Your task to perform on an android device: turn vacation reply on in the gmail app Image 0: 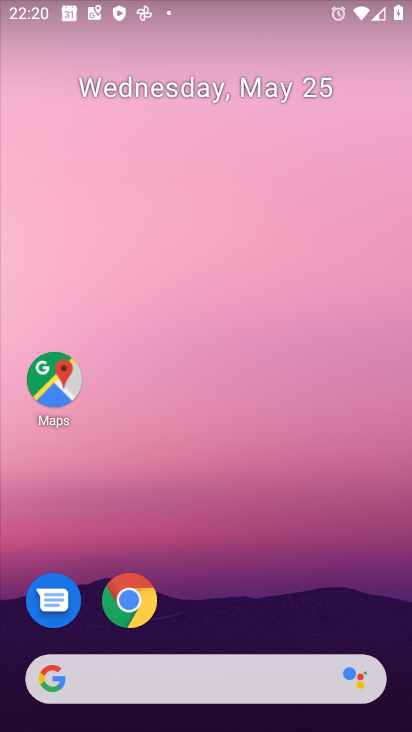
Step 0: drag from (274, 517) to (306, 102)
Your task to perform on an android device: turn vacation reply on in the gmail app Image 1: 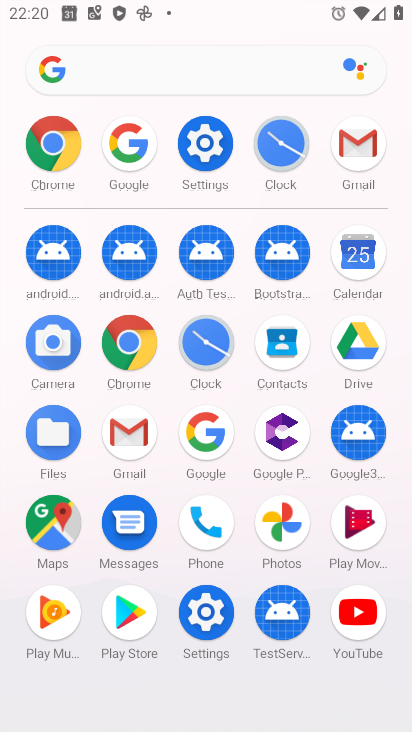
Step 1: click (146, 433)
Your task to perform on an android device: turn vacation reply on in the gmail app Image 2: 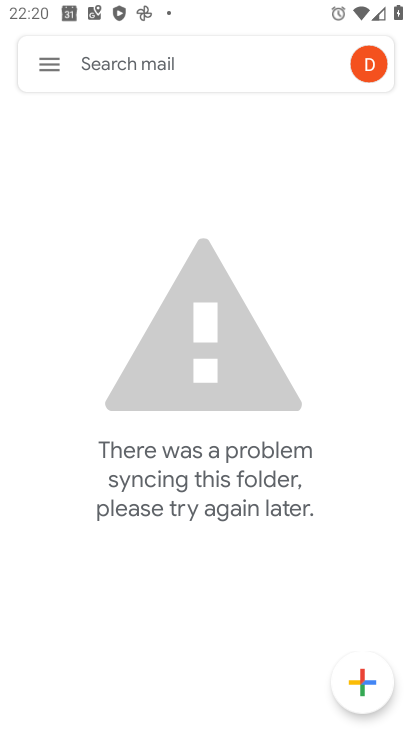
Step 2: click (33, 52)
Your task to perform on an android device: turn vacation reply on in the gmail app Image 3: 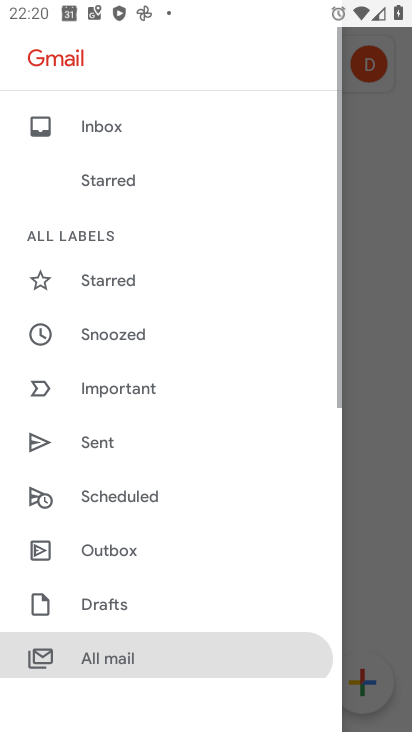
Step 3: drag from (154, 618) to (226, 198)
Your task to perform on an android device: turn vacation reply on in the gmail app Image 4: 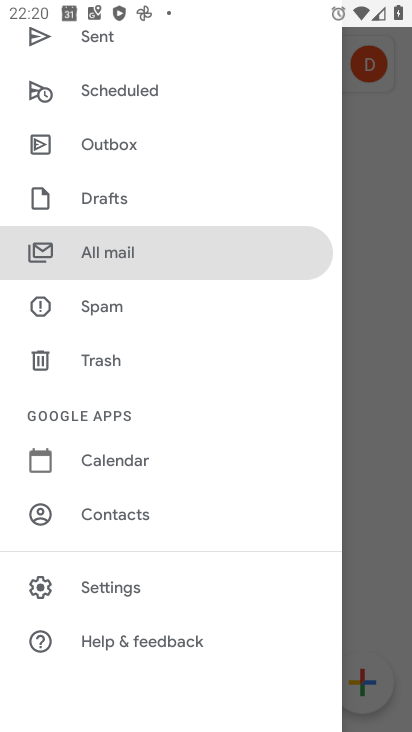
Step 4: click (181, 590)
Your task to perform on an android device: turn vacation reply on in the gmail app Image 5: 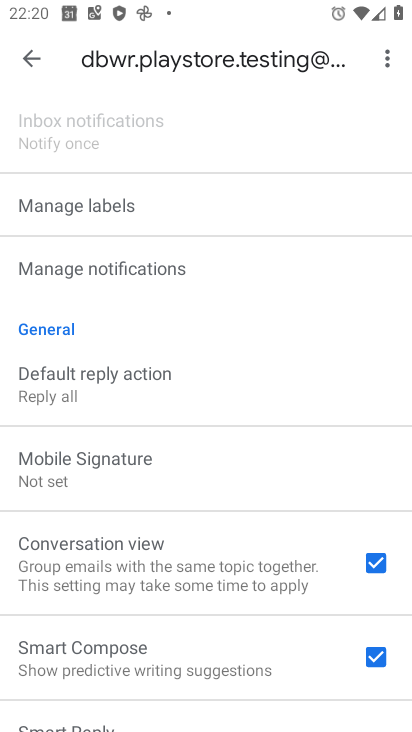
Step 5: drag from (275, 684) to (314, 292)
Your task to perform on an android device: turn vacation reply on in the gmail app Image 6: 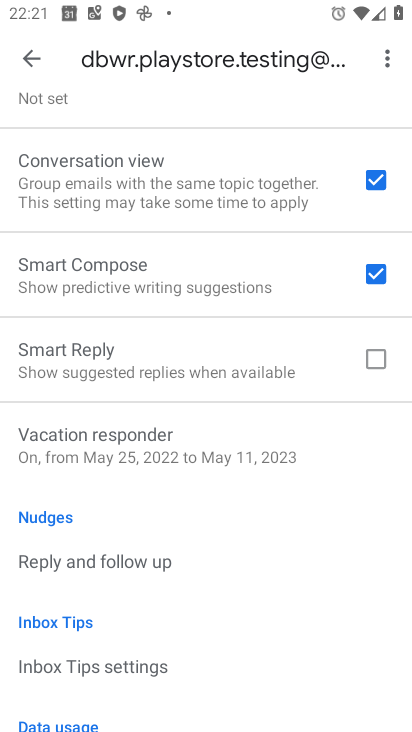
Step 6: click (215, 412)
Your task to perform on an android device: turn vacation reply on in the gmail app Image 7: 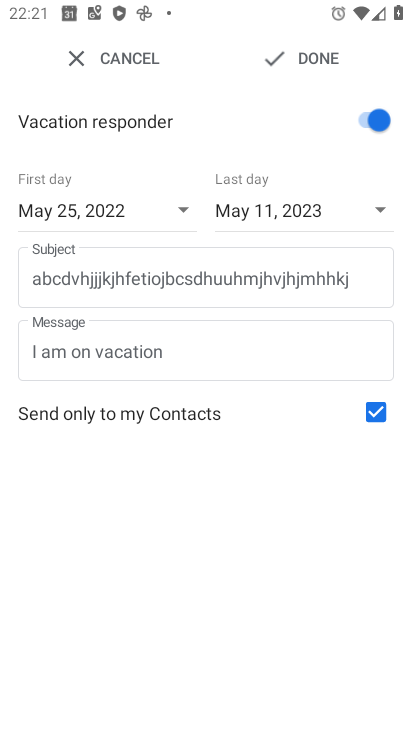
Step 7: task complete